Your task to perform on an android device: add a contact Image 0: 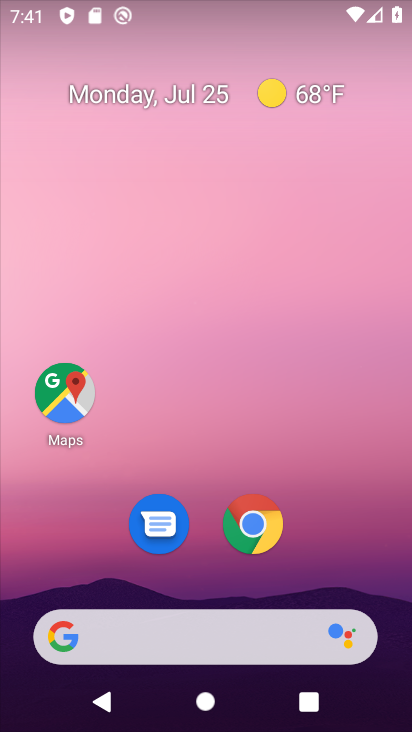
Step 0: drag from (311, 538) to (312, 48)
Your task to perform on an android device: add a contact Image 1: 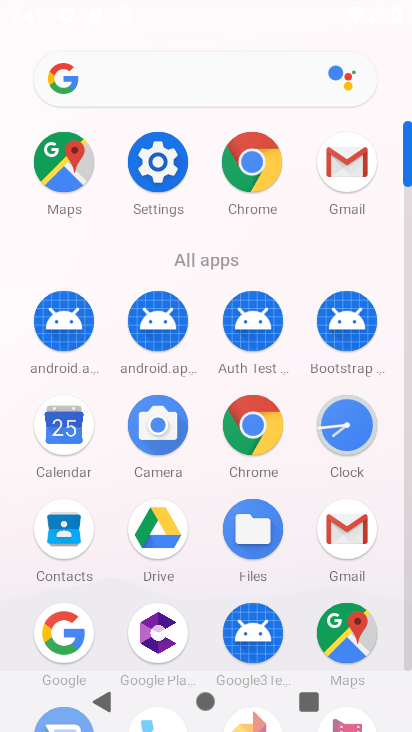
Step 1: click (68, 525)
Your task to perform on an android device: add a contact Image 2: 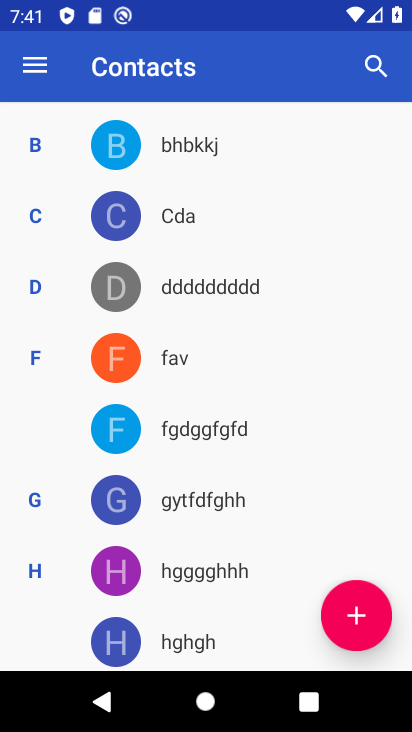
Step 2: click (354, 620)
Your task to perform on an android device: add a contact Image 3: 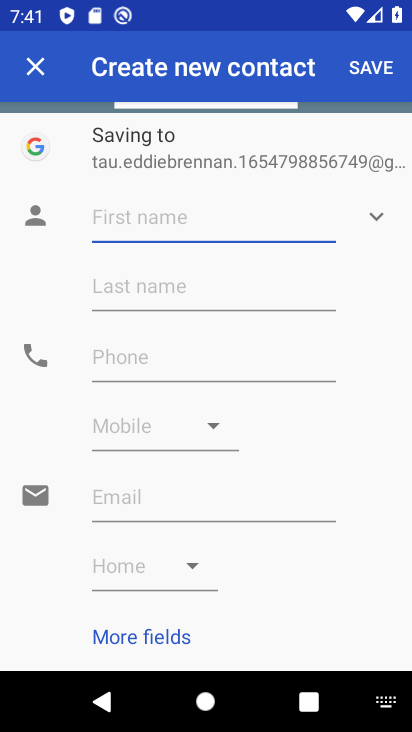
Step 3: type "Aadi Om Shambhu"
Your task to perform on an android device: add a contact Image 4: 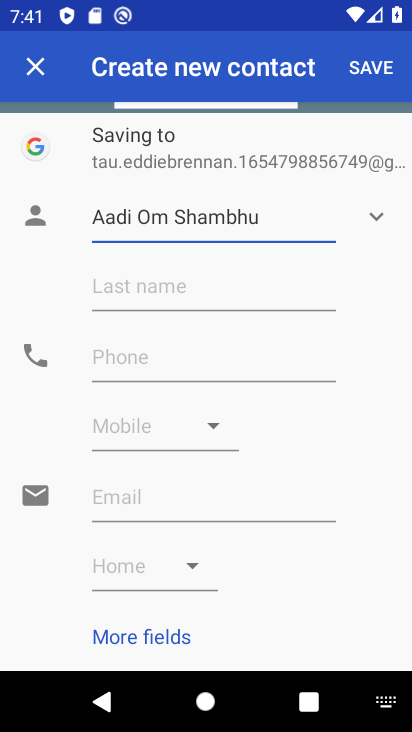
Step 4: click (229, 368)
Your task to perform on an android device: add a contact Image 5: 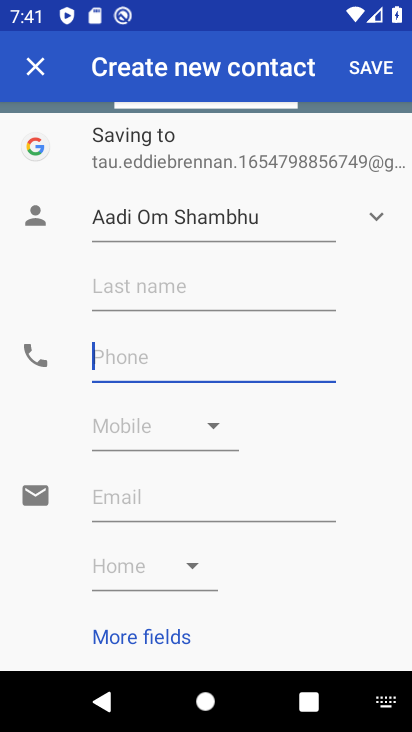
Step 5: type "+919999000001"
Your task to perform on an android device: add a contact Image 6: 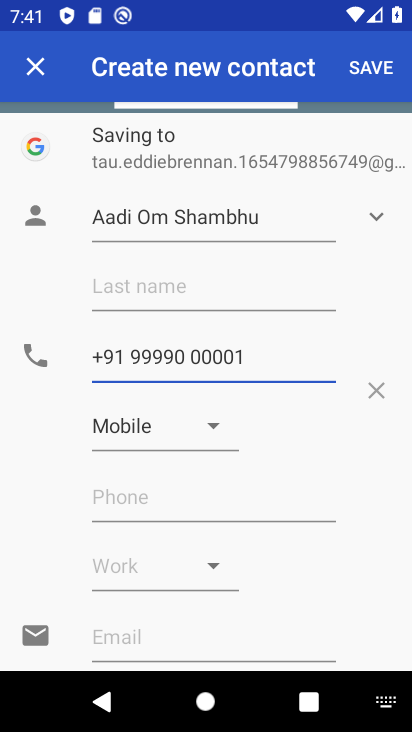
Step 6: click (374, 63)
Your task to perform on an android device: add a contact Image 7: 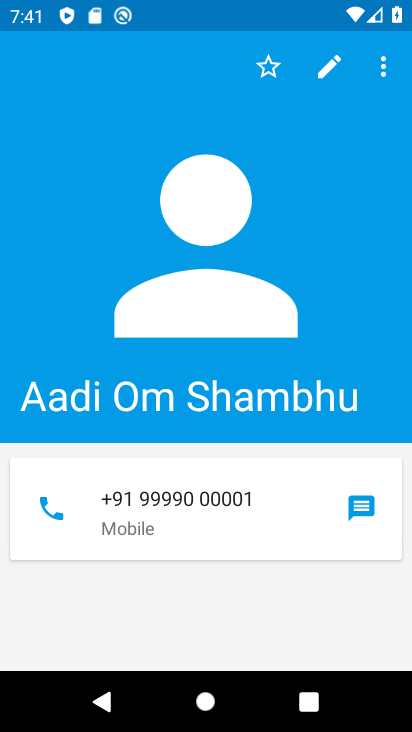
Step 7: task complete